Your task to perform on an android device: What is the recent news? Image 0: 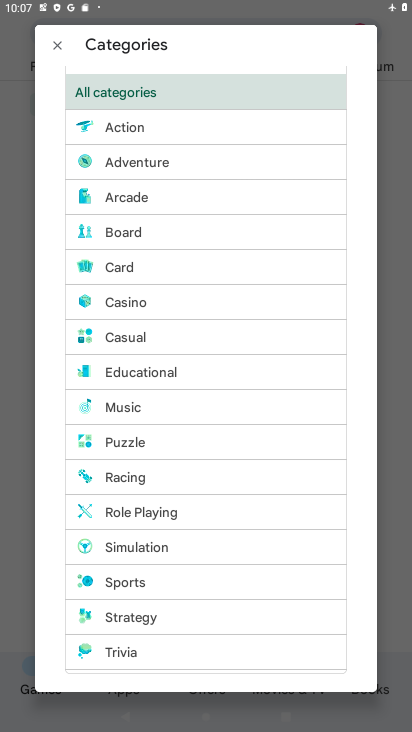
Step 0: press back button
Your task to perform on an android device: What is the recent news? Image 1: 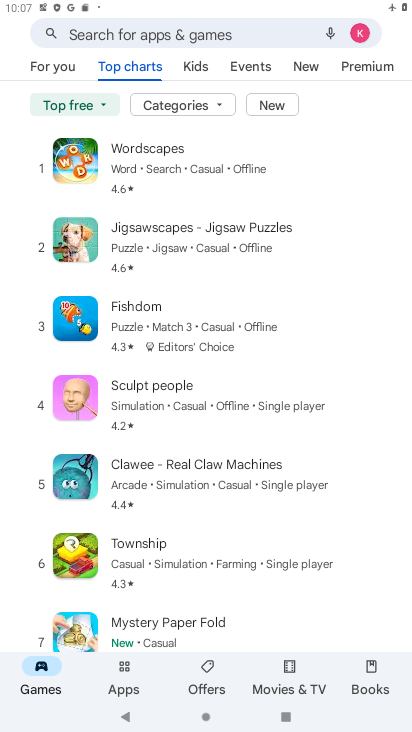
Step 1: press back button
Your task to perform on an android device: What is the recent news? Image 2: 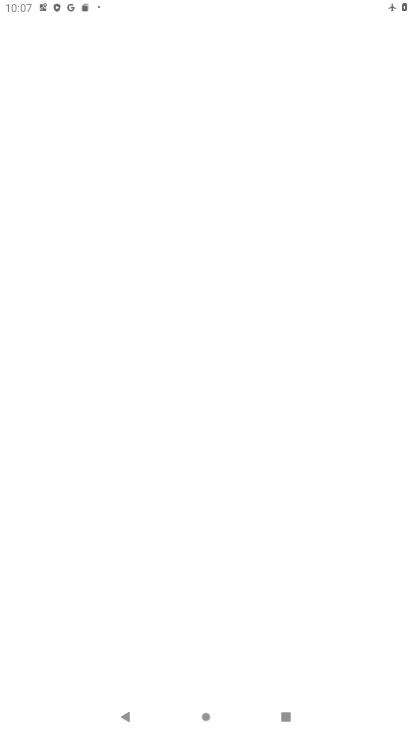
Step 2: press back button
Your task to perform on an android device: What is the recent news? Image 3: 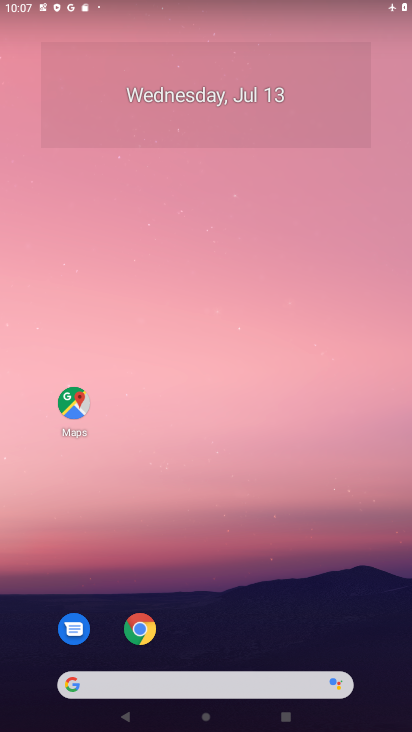
Step 3: click (228, 682)
Your task to perform on an android device: What is the recent news? Image 4: 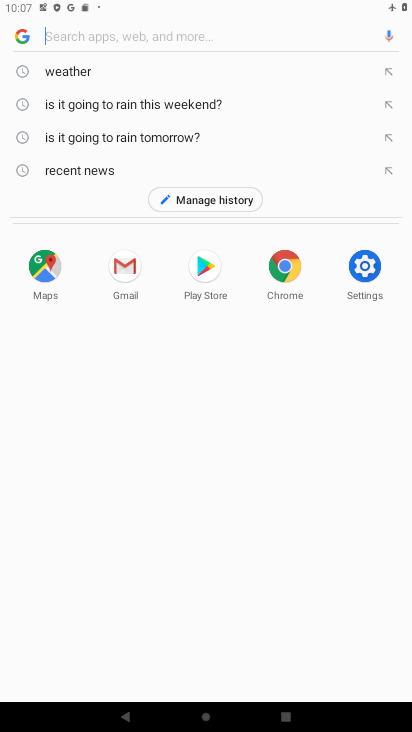
Step 4: type "news"
Your task to perform on an android device: What is the recent news? Image 5: 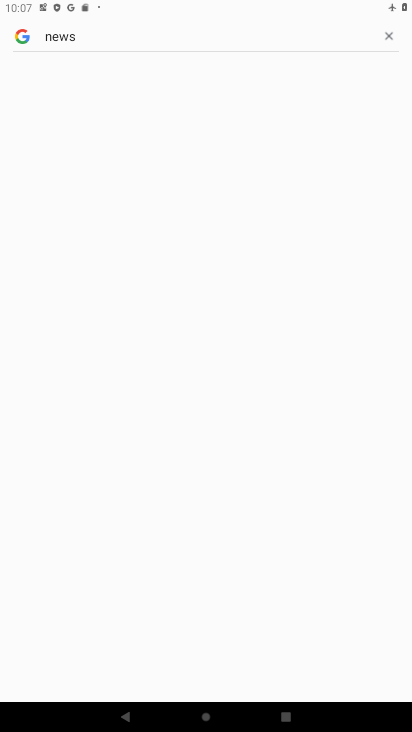
Step 5: task complete